Your task to perform on an android device: Do I have any events tomorrow? Image 0: 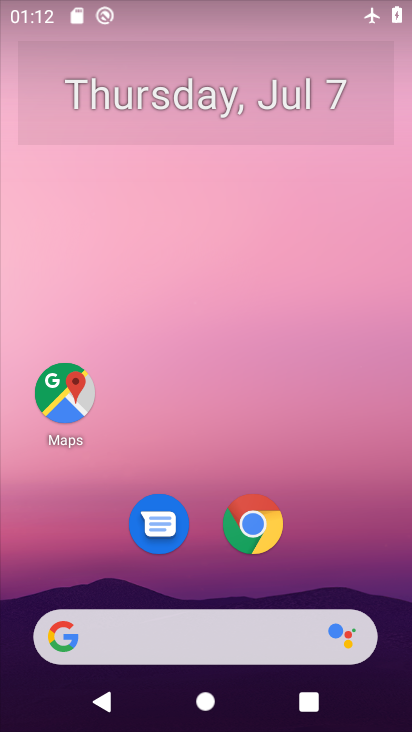
Step 0: drag from (321, 540) to (333, 53)
Your task to perform on an android device: Do I have any events tomorrow? Image 1: 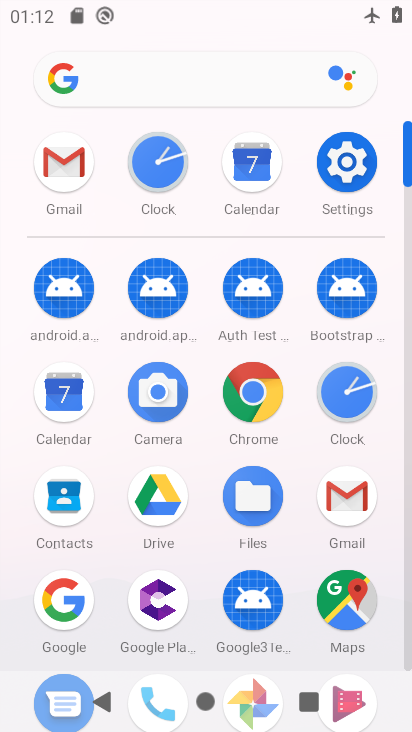
Step 1: click (67, 395)
Your task to perform on an android device: Do I have any events tomorrow? Image 2: 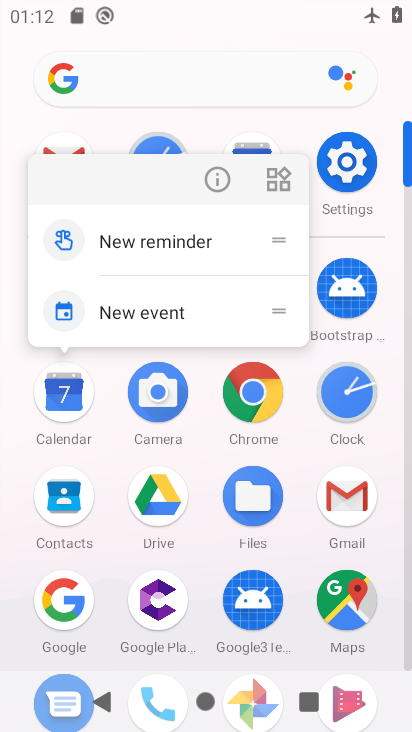
Step 2: click (67, 392)
Your task to perform on an android device: Do I have any events tomorrow? Image 3: 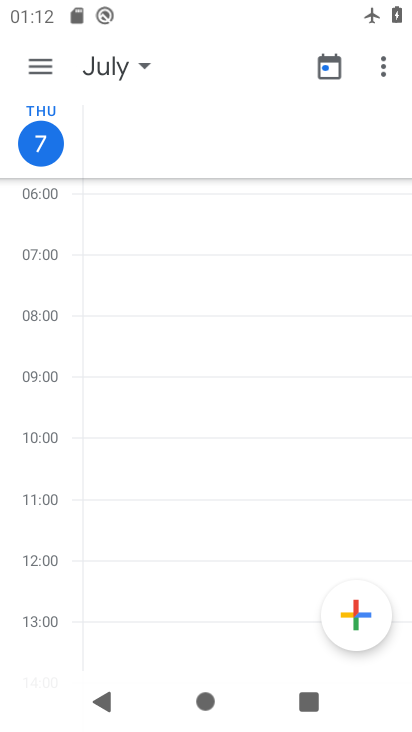
Step 3: drag from (168, 517) to (191, 340)
Your task to perform on an android device: Do I have any events tomorrow? Image 4: 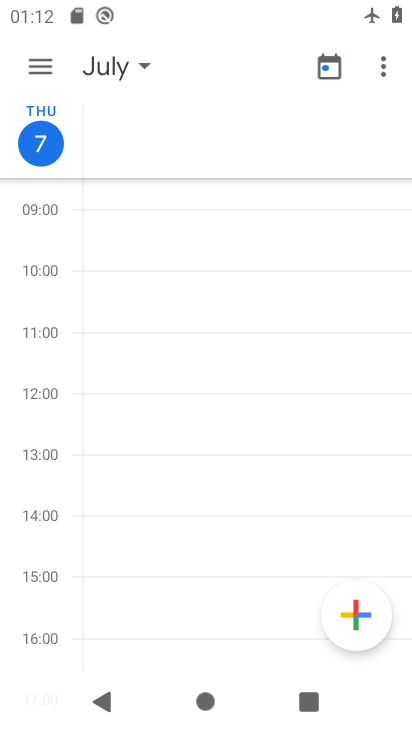
Step 4: drag from (162, 585) to (176, 186)
Your task to perform on an android device: Do I have any events tomorrow? Image 5: 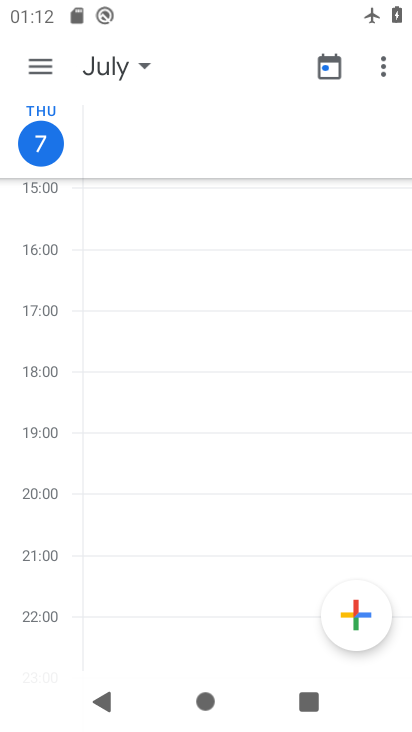
Step 5: drag from (159, 583) to (166, 201)
Your task to perform on an android device: Do I have any events tomorrow? Image 6: 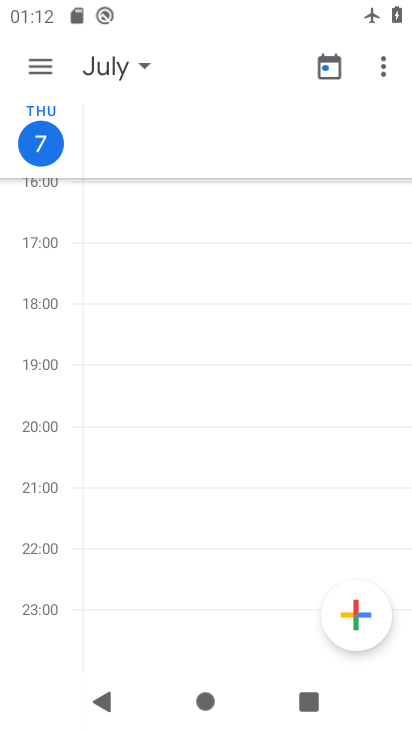
Step 6: drag from (125, 506) to (152, 214)
Your task to perform on an android device: Do I have any events tomorrow? Image 7: 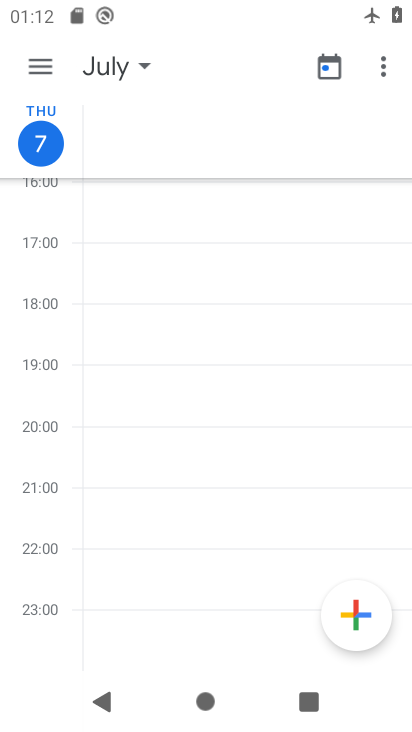
Step 7: click (43, 64)
Your task to perform on an android device: Do I have any events tomorrow? Image 8: 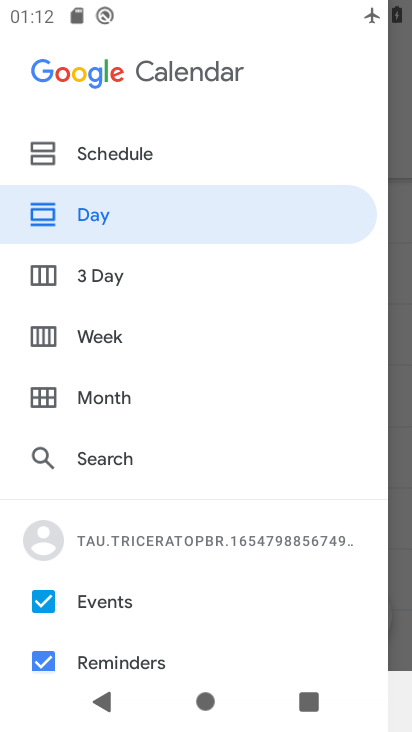
Step 8: click (86, 335)
Your task to perform on an android device: Do I have any events tomorrow? Image 9: 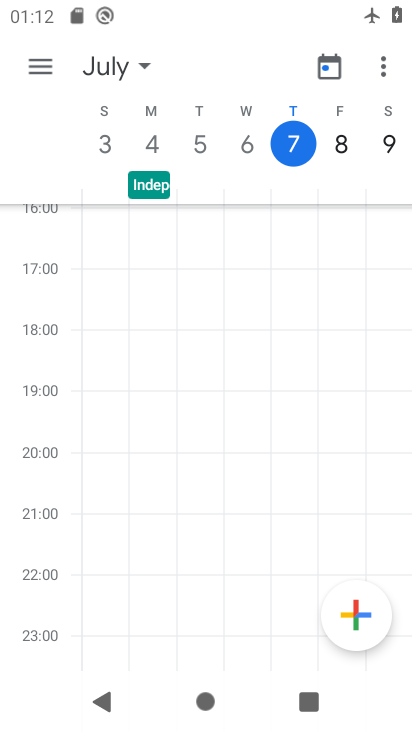
Step 9: drag from (327, 250) to (331, 567)
Your task to perform on an android device: Do I have any events tomorrow? Image 10: 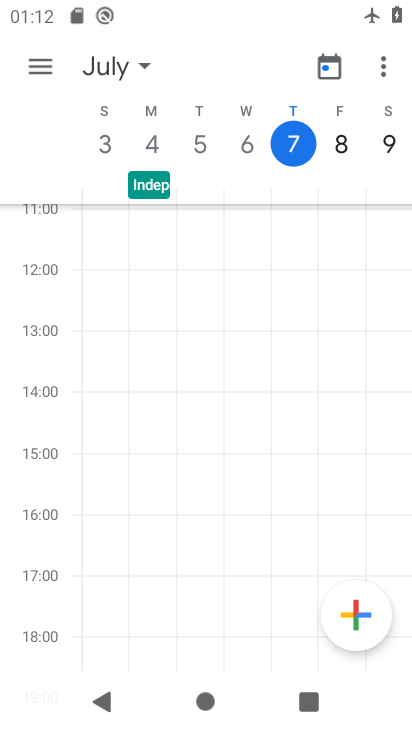
Step 10: drag from (321, 254) to (328, 505)
Your task to perform on an android device: Do I have any events tomorrow? Image 11: 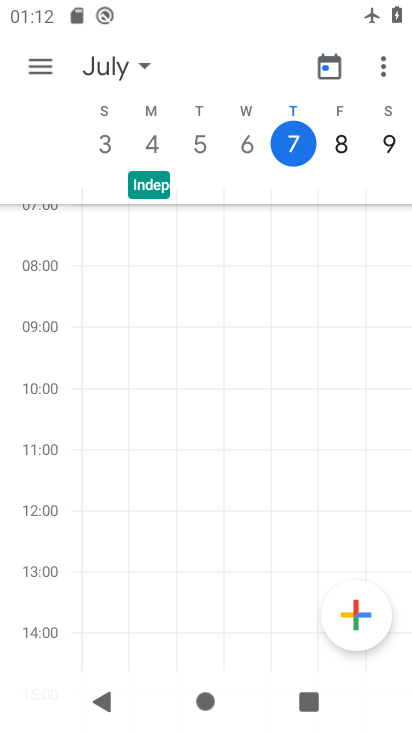
Step 11: drag from (333, 259) to (305, 527)
Your task to perform on an android device: Do I have any events tomorrow? Image 12: 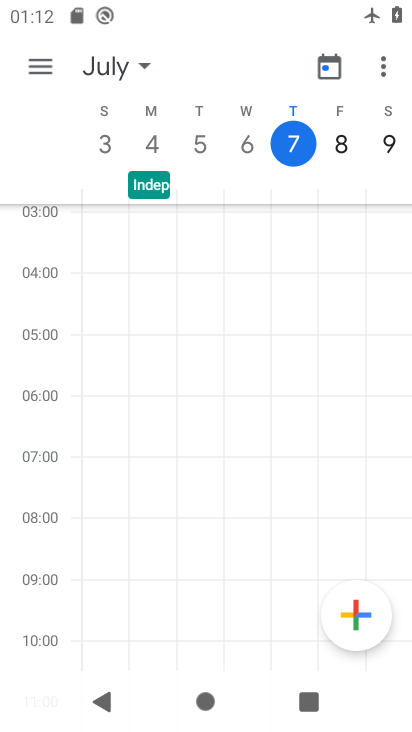
Step 12: drag from (335, 255) to (342, 428)
Your task to perform on an android device: Do I have any events tomorrow? Image 13: 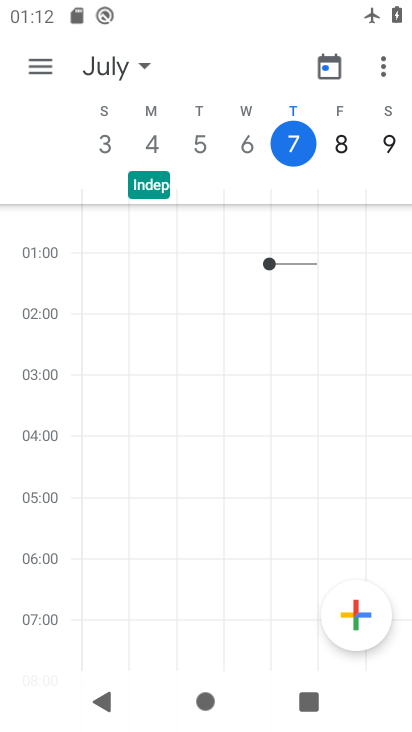
Step 13: drag from (320, 419) to (326, 170)
Your task to perform on an android device: Do I have any events tomorrow? Image 14: 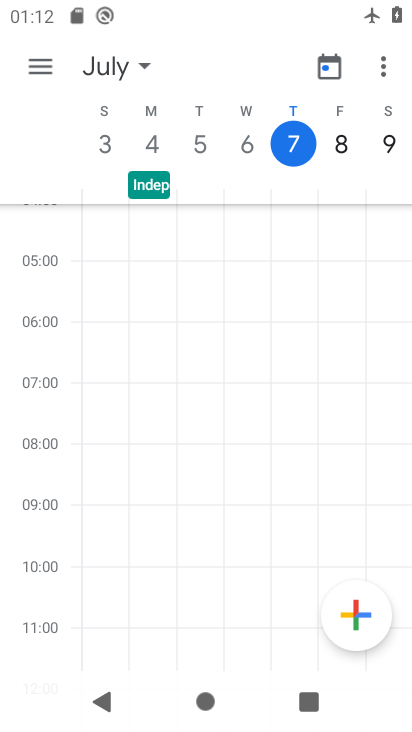
Step 14: drag from (243, 501) to (279, 235)
Your task to perform on an android device: Do I have any events tomorrow? Image 15: 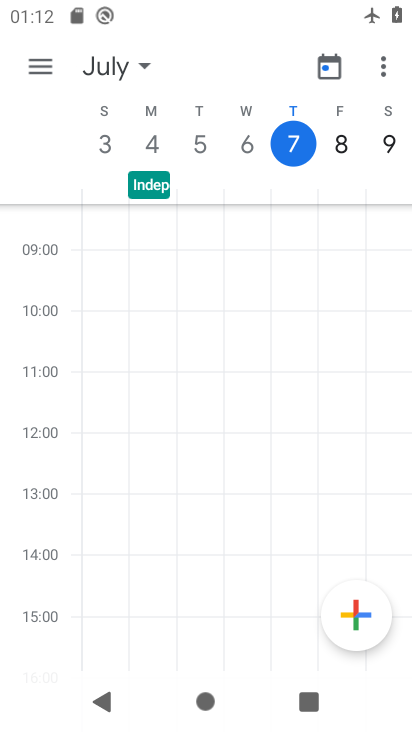
Step 15: drag from (285, 567) to (323, 189)
Your task to perform on an android device: Do I have any events tomorrow? Image 16: 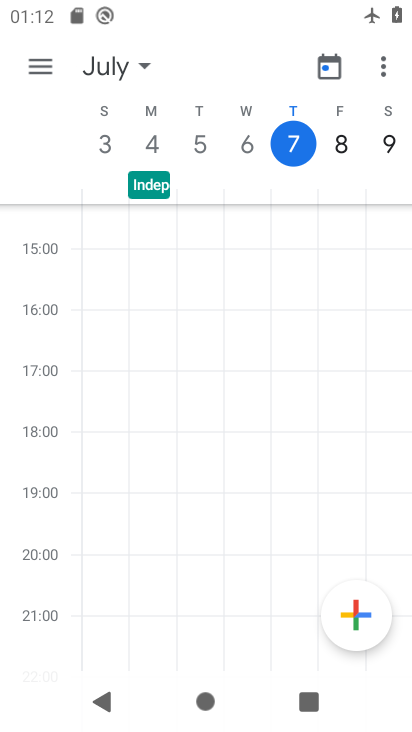
Step 16: click (337, 134)
Your task to perform on an android device: Do I have any events tomorrow? Image 17: 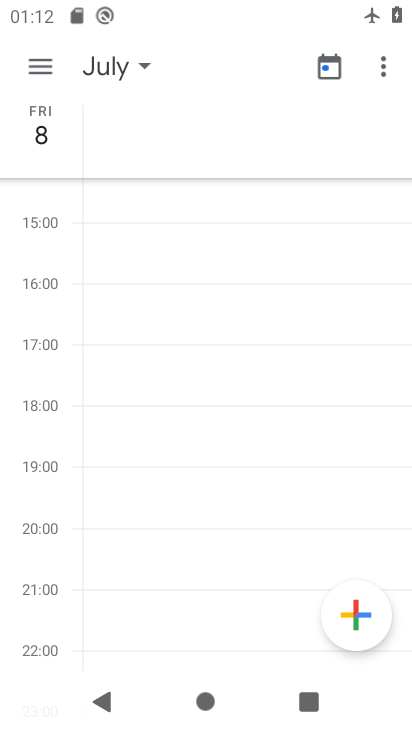
Step 17: click (44, 61)
Your task to perform on an android device: Do I have any events tomorrow? Image 18: 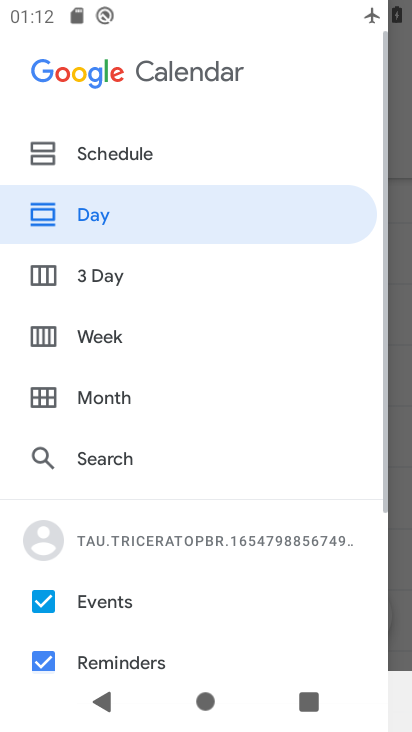
Step 18: click (106, 144)
Your task to perform on an android device: Do I have any events tomorrow? Image 19: 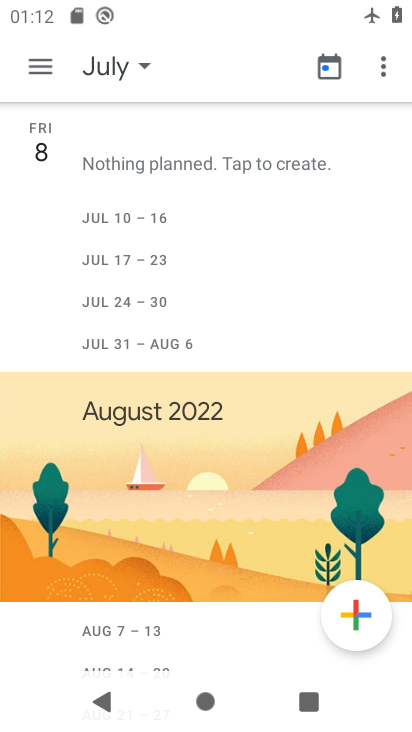
Step 19: task complete